Your task to perform on an android device: Find coffee shops on Maps Image 0: 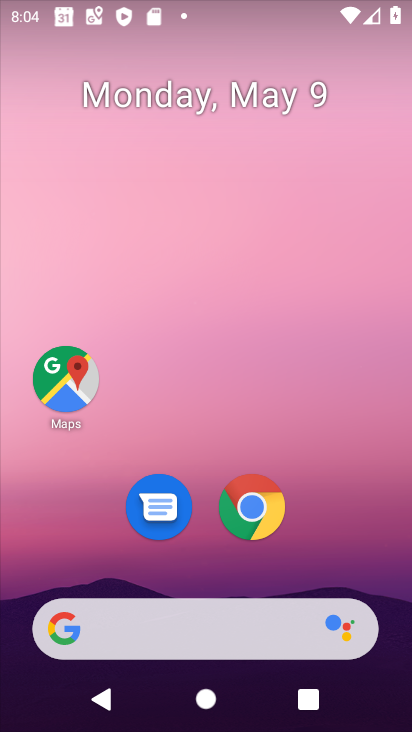
Step 0: drag from (255, 641) to (320, 117)
Your task to perform on an android device: Find coffee shops on Maps Image 1: 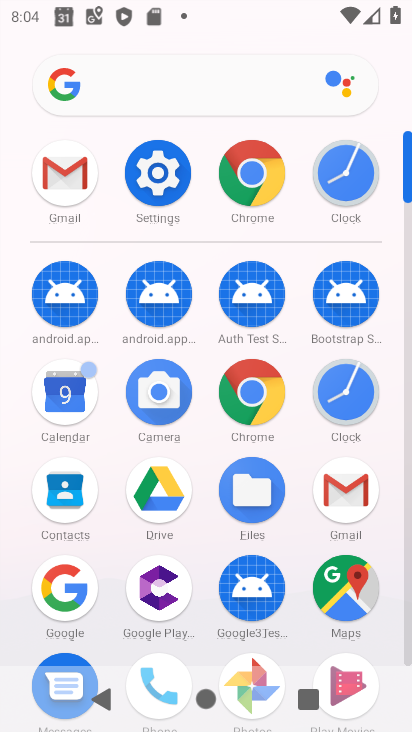
Step 1: click (330, 593)
Your task to perform on an android device: Find coffee shops on Maps Image 2: 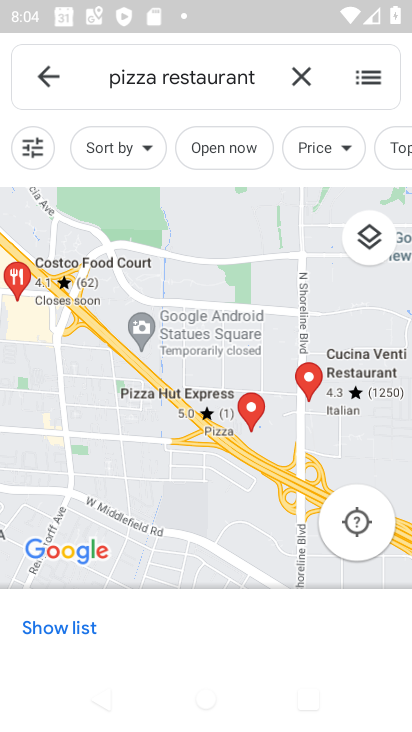
Step 2: click (301, 78)
Your task to perform on an android device: Find coffee shops on Maps Image 3: 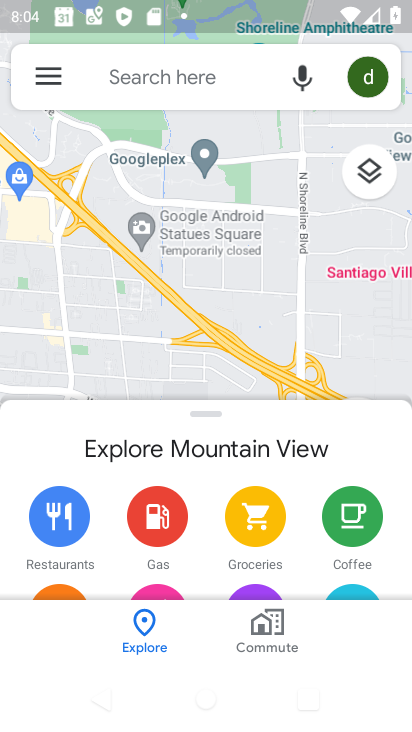
Step 3: click (192, 72)
Your task to perform on an android device: Find coffee shops on Maps Image 4: 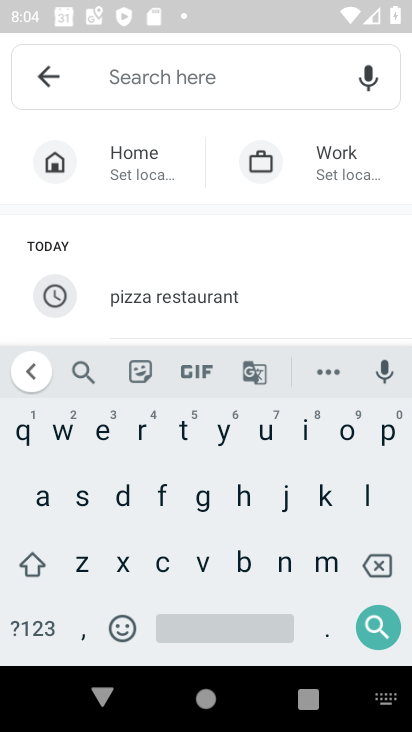
Step 4: click (168, 566)
Your task to perform on an android device: Find coffee shops on Maps Image 5: 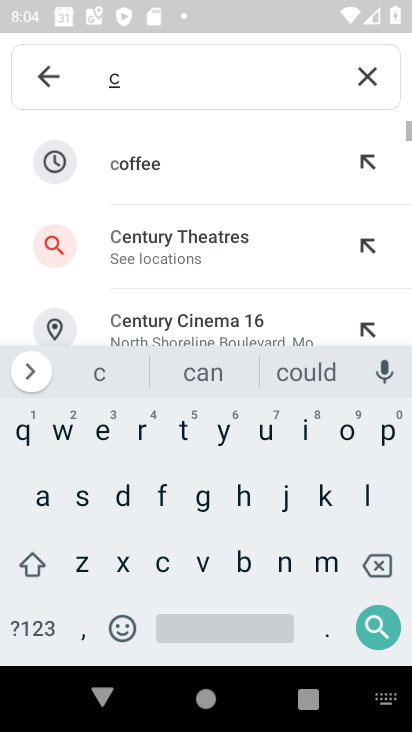
Step 5: click (181, 184)
Your task to perform on an android device: Find coffee shops on Maps Image 6: 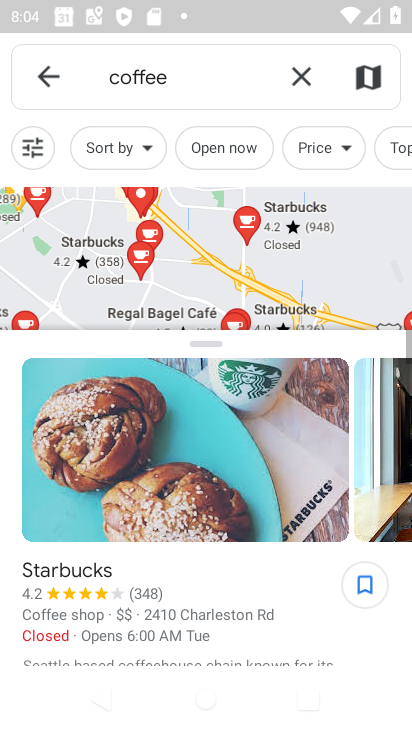
Step 6: click (202, 231)
Your task to perform on an android device: Find coffee shops on Maps Image 7: 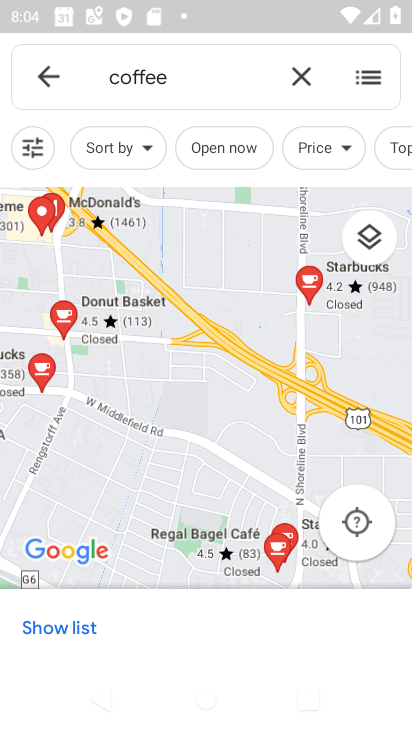
Step 7: task complete